Your task to perform on an android device: Open maps Image 0: 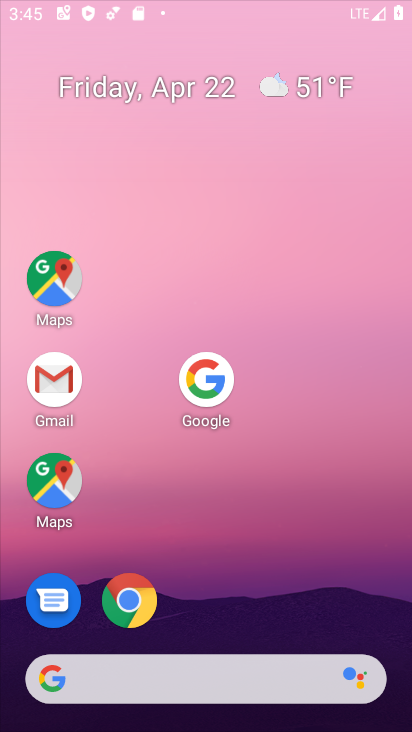
Step 0: drag from (269, 250) to (259, 200)
Your task to perform on an android device: Open maps Image 1: 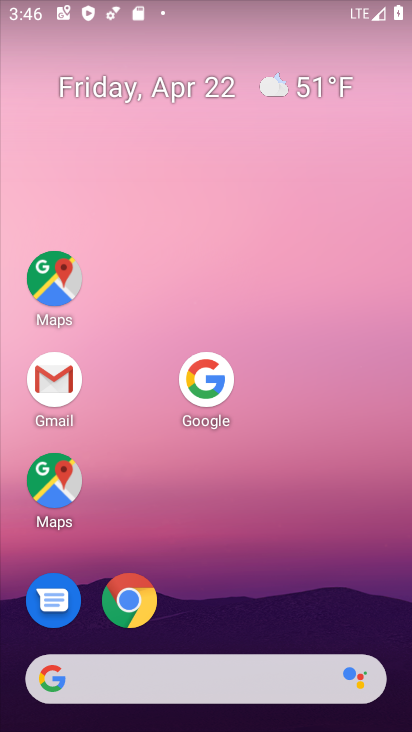
Step 1: drag from (225, 436) to (301, 128)
Your task to perform on an android device: Open maps Image 2: 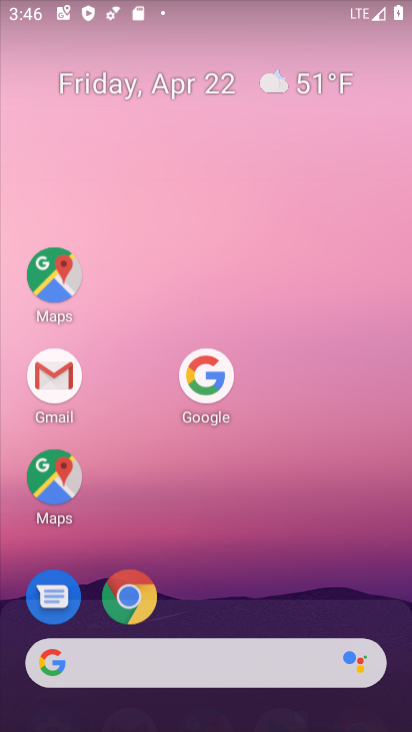
Step 2: drag from (251, 220) to (234, 88)
Your task to perform on an android device: Open maps Image 3: 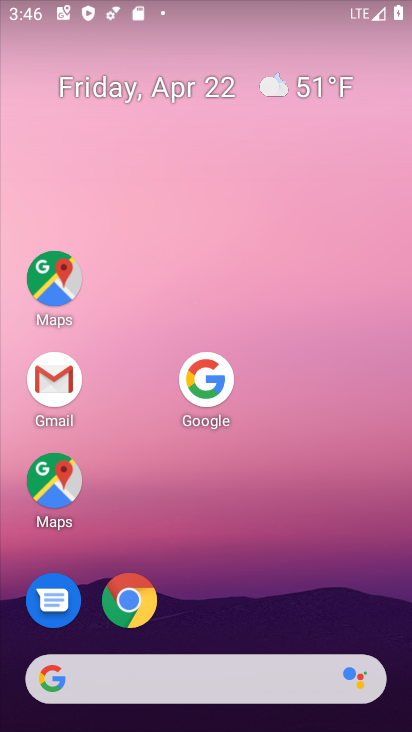
Step 3: drag from (228, 437) to (229, 12)
Your task to perform on an android device: Open maps Image 4: 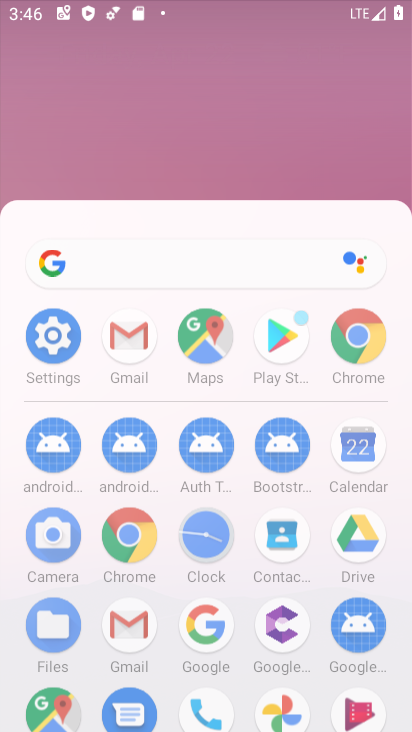
Step 4: drag from (261, 426) to (223, 27)
Your task to perform on an android device: Open maps Image 5: 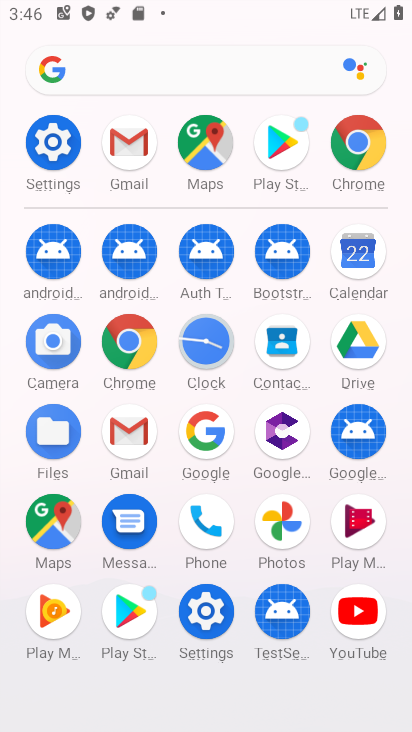
Step 5: drag from (183, 135) to (183, 96)
Your task to perform on an android device: Open maps Image 6: 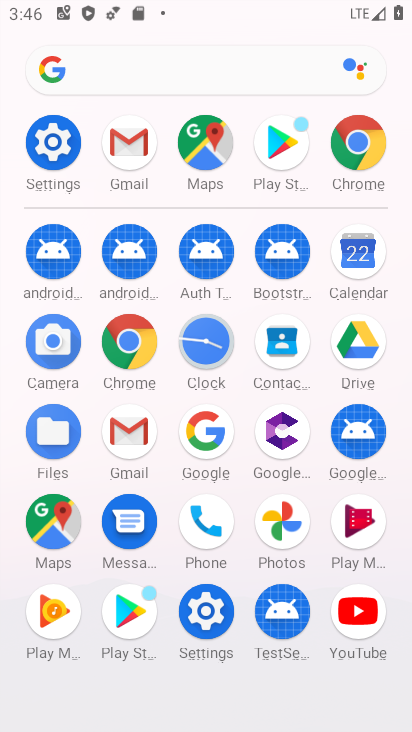
Step 6: click (363, 142)
Your task to perform on an android device: Open maps Image 7: 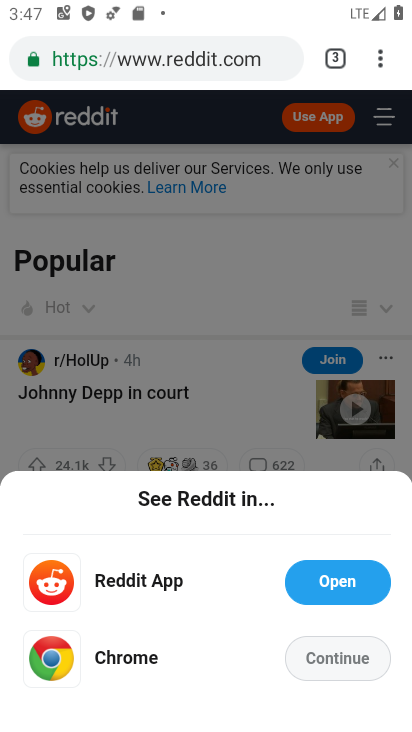
Step 7: press home button
Your task to perform on an android device: Open maps Image 8: 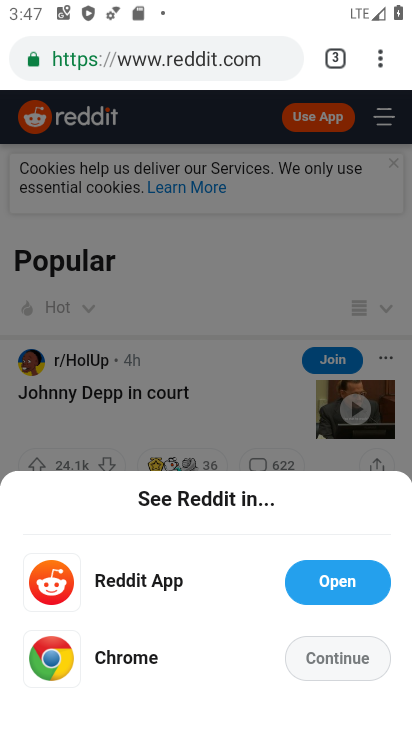
Step 8: press home button
Your task to perform on an android device: Open maps Image 9: 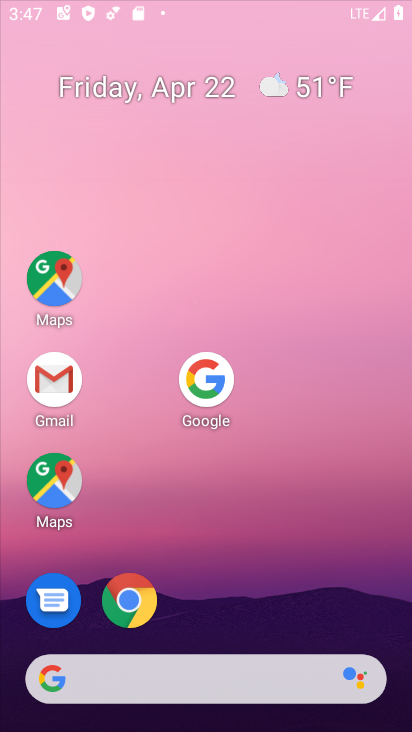
Step 9: press home button
Your task to perform on an android device: Open maps Image 10: 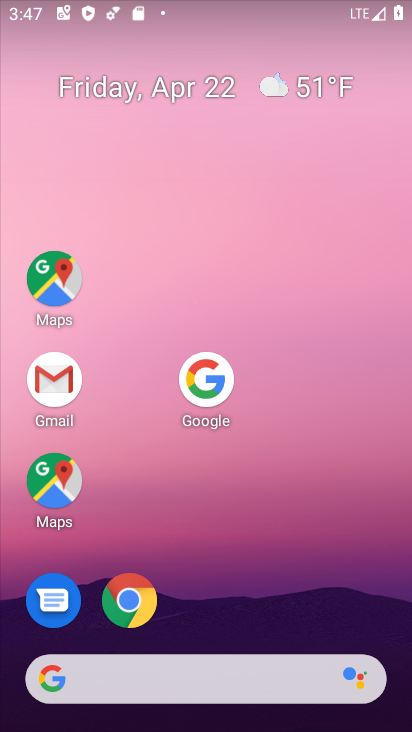
Step 10: press home button
Your task to perform on an android device: Open maps Image 11: 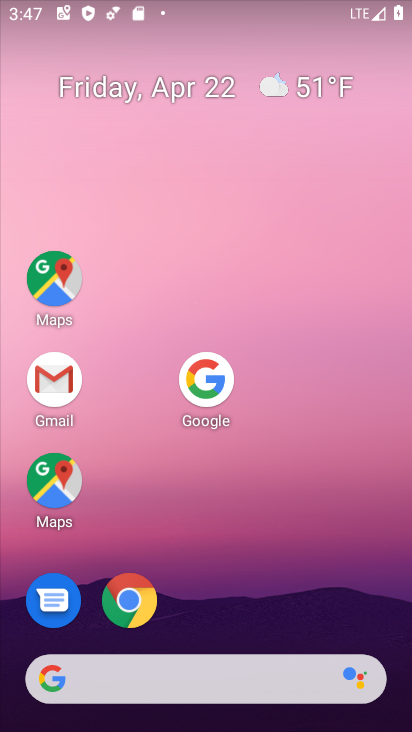
Step 11: press home button
Your task to perform on an android device: Open maps Image 12: 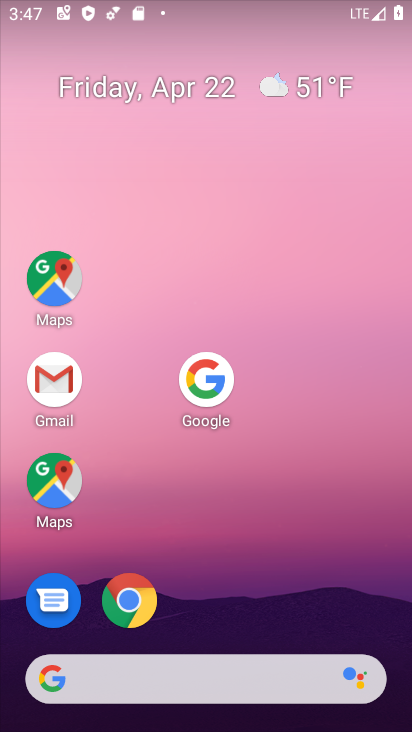
Step 12: drag from (287, 638) to (183, 196)
Your task to perform on an android device: Open maps Image 13: 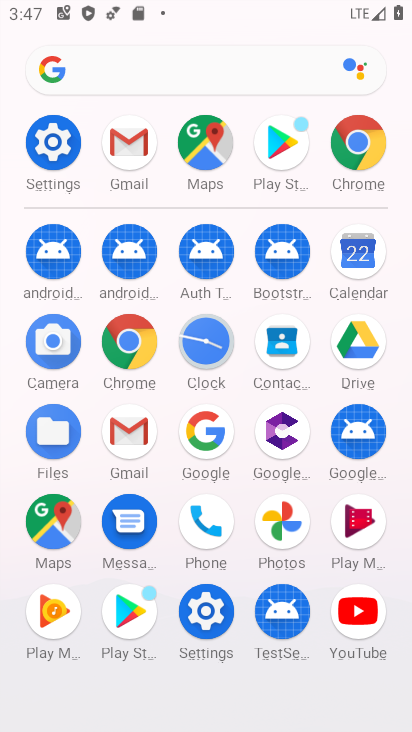
Step 13: click (193, 150)
Your task to perform on an android device: Open maps Image 14: 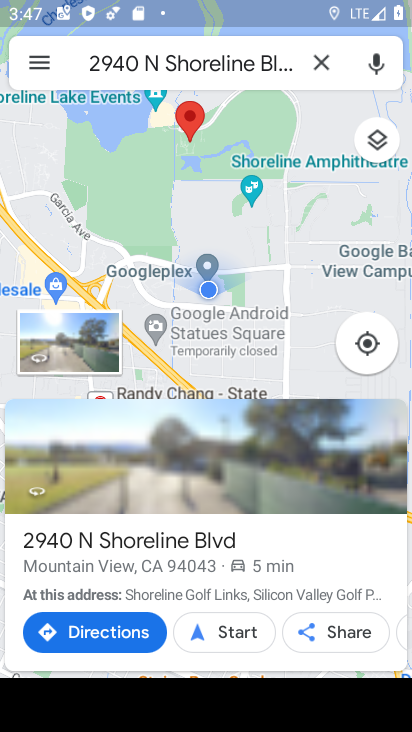
Step 14: click (37, 65)
Your task to perform on an android device: Open maps Image 15: 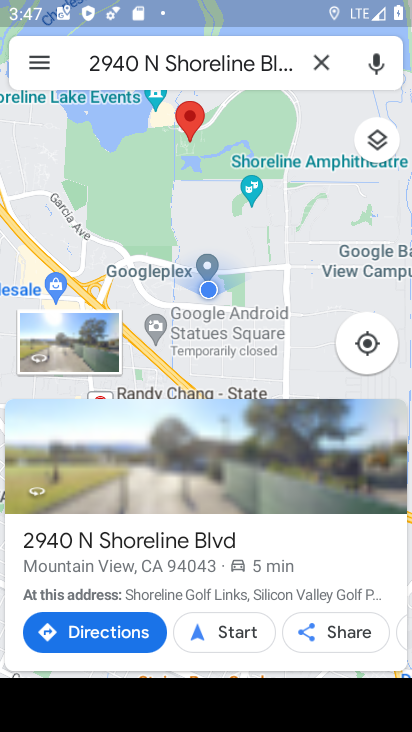
Step 15: click (37, 66)
Your task to perform on an android device: Open maps Image 16: 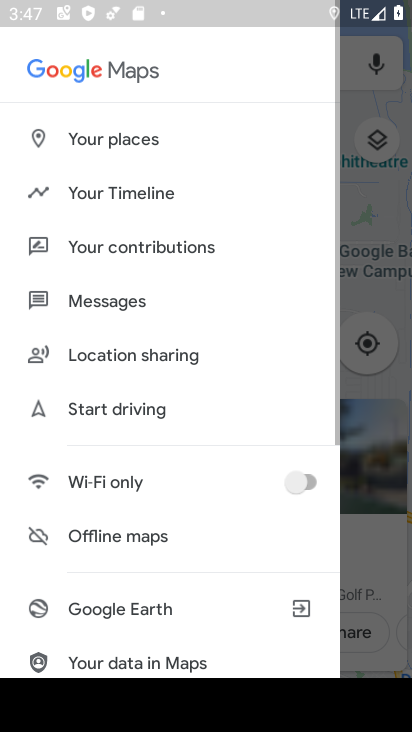
Step 16: click (37, 68)
Your task to perform on an android device: Open maps Image 17: 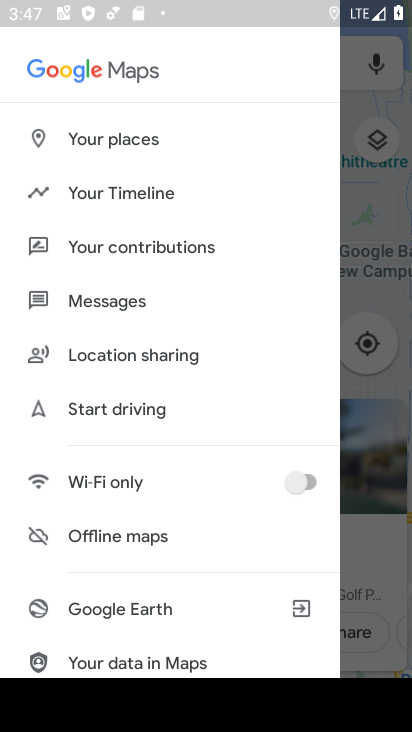
Step 17: click (129, 189)
Your task to perform on an android device: Open maps Image 18: 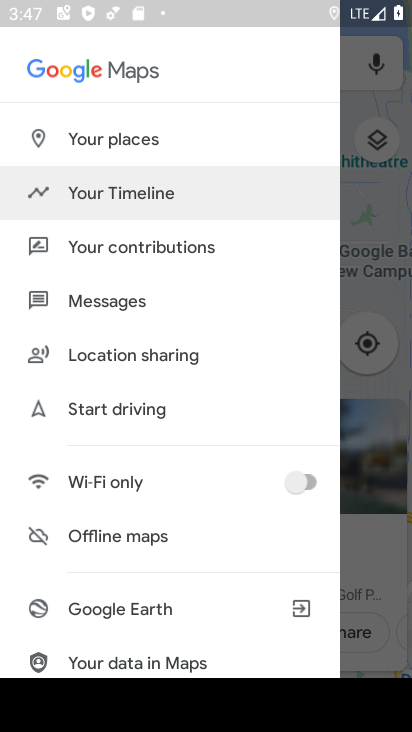
Step 18: click (128, 190)
Your task to perform on an android device: Open maps Image 19: 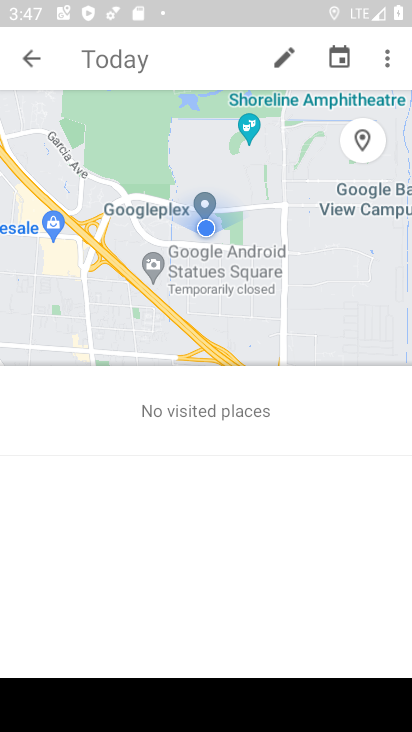
Step 19: click (30, 63)
Your task to perform on an android device: Open maps Image 20: 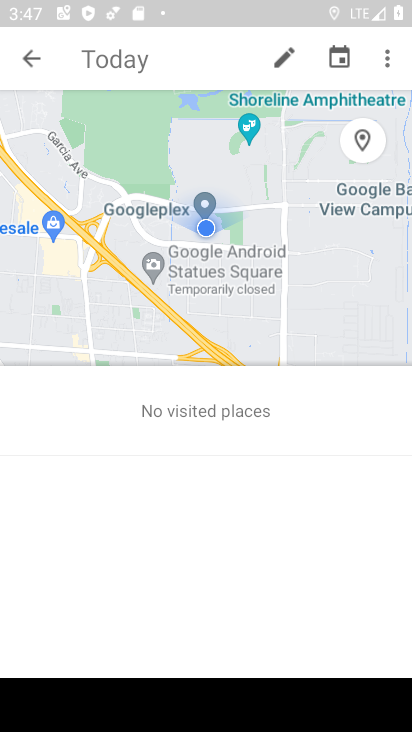
Step 20: click (30, 63)
Your task to perform on an android device: Open maps Image 21: 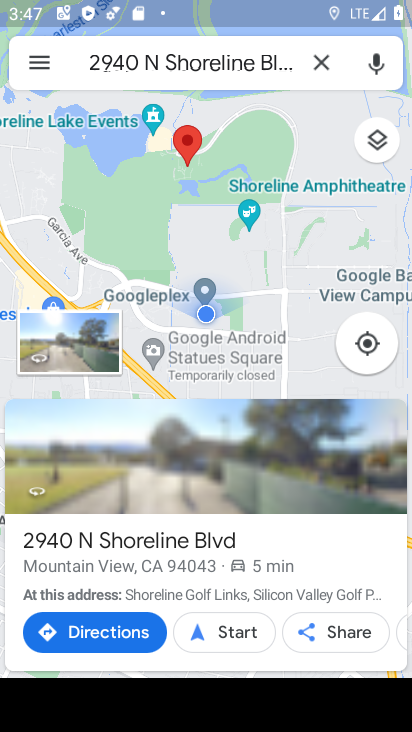
Step 21: click (87, 60)
Your task to perform on an android device: Open maps Image 22: 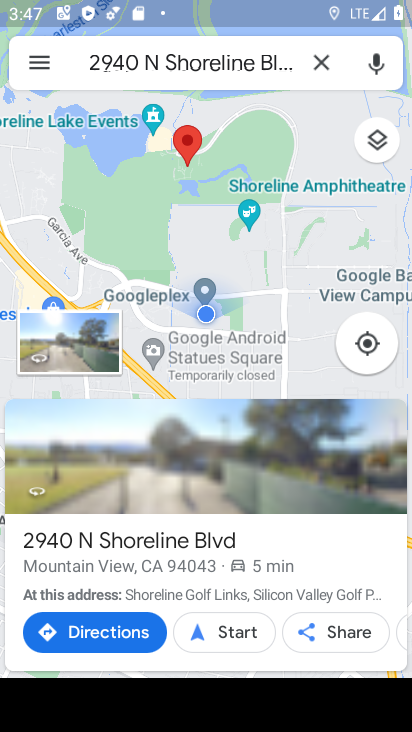
Step 22: click (88, 60)
Your task to perform on an android device: Open maps Image 23: 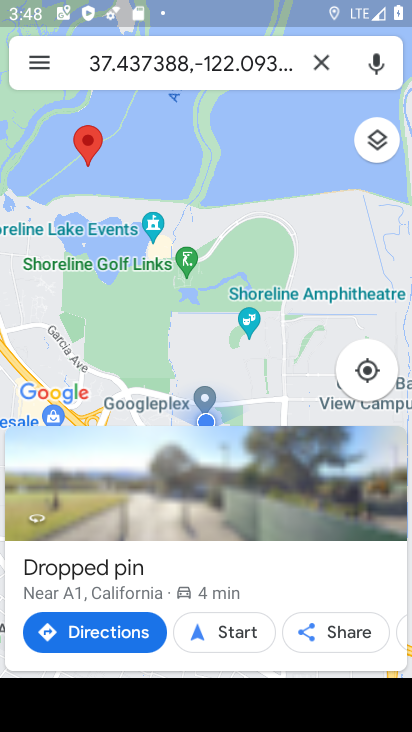
Step 23: click (321, 63)
Your task to perform on an android device: Open maps Image 24: 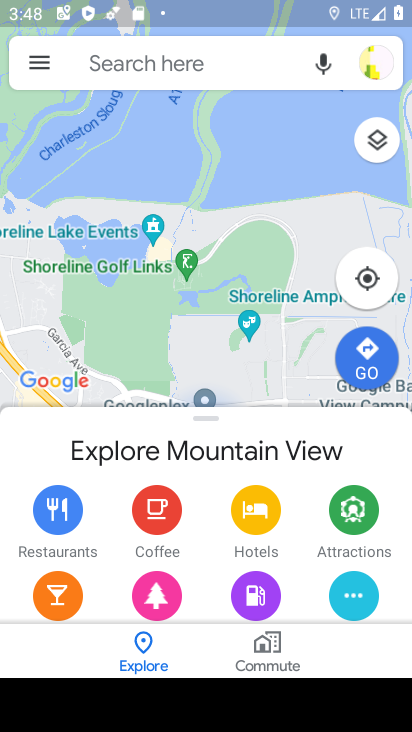
Step 24: click (143, 68)
Your task to perform on an android device: Open maps Image 25: 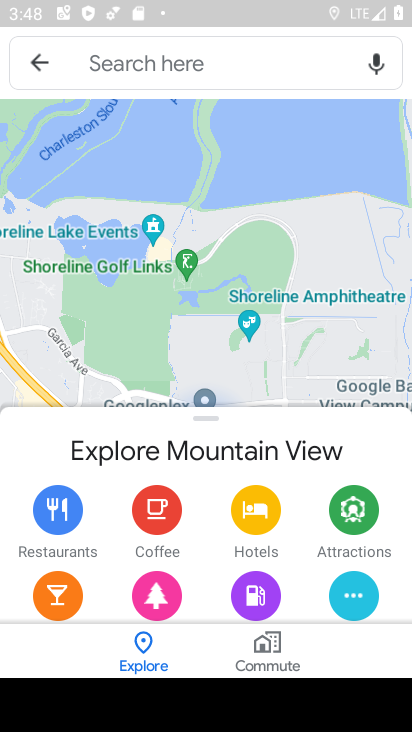
Step 25: click (143, 68)
Your task to perform on an android device: Open maps Image 26: 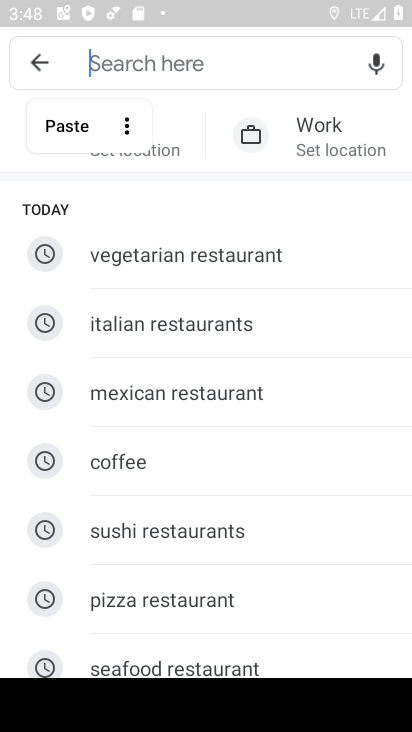
Step 26: click (43, 66)
Your task to perform on an android device: Open maps Image 27: 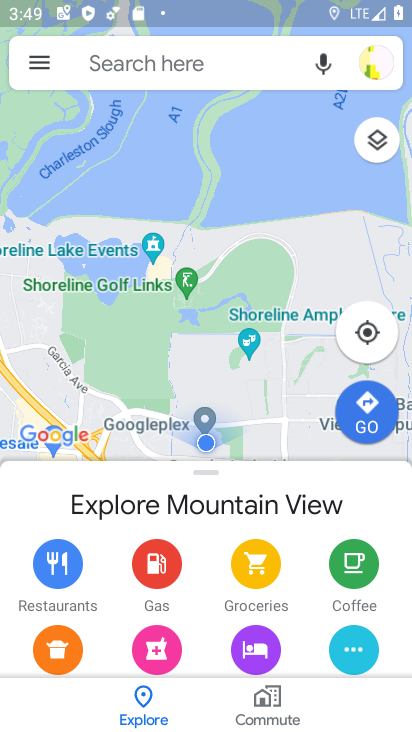
Step 27: click (93, 60)
Your task to perform on an android device: Open maps Image 28: 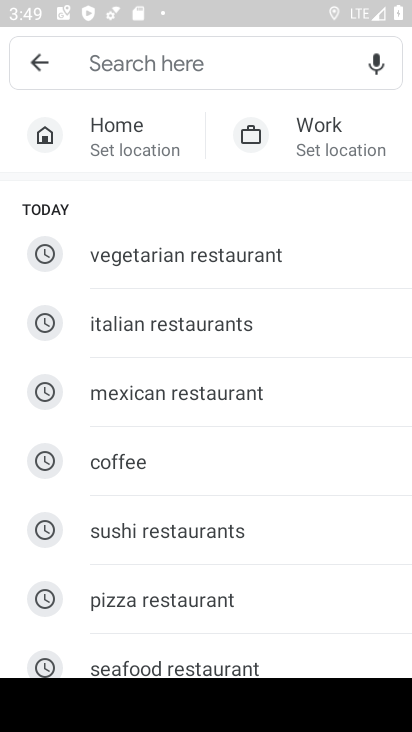
Step 28: click (108, 65)
Your task to perform on an android device: Open maps Image 29: 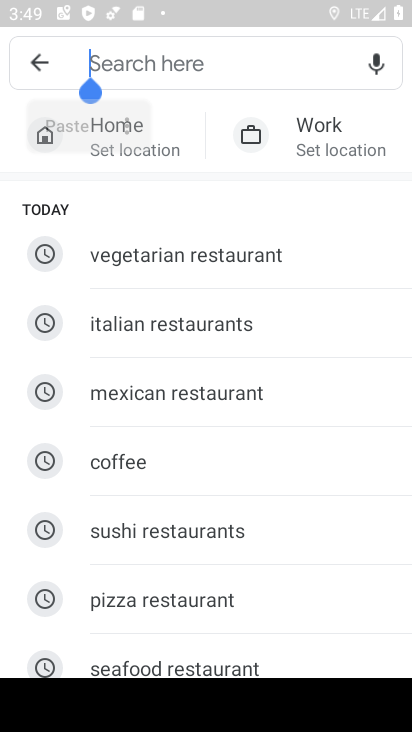
Step 29: click (36, 65)
Your task to perform on an android device: Open maps Image 30: 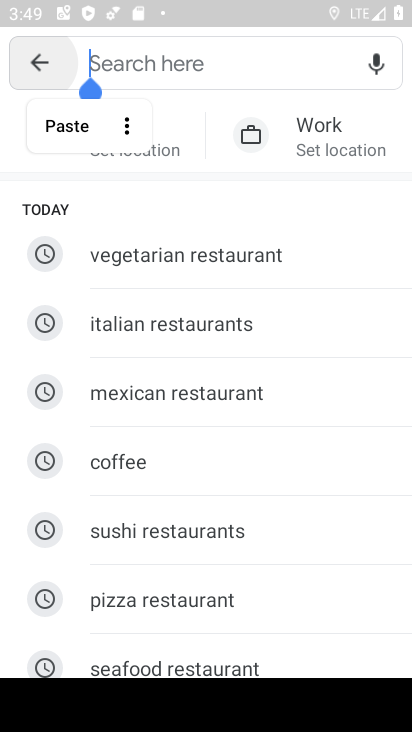
Step 30: click (38, 63)
Your task to perform on an android device: Open maps Image 31: 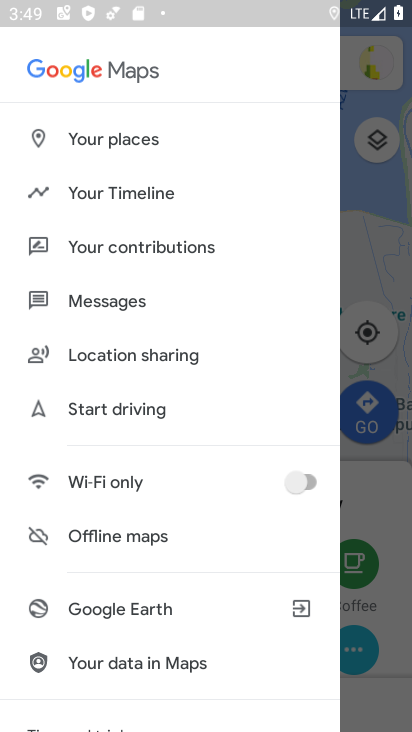
Step 31: click (127, 190)
Your task to perform on an android device: Open maps Image 32: 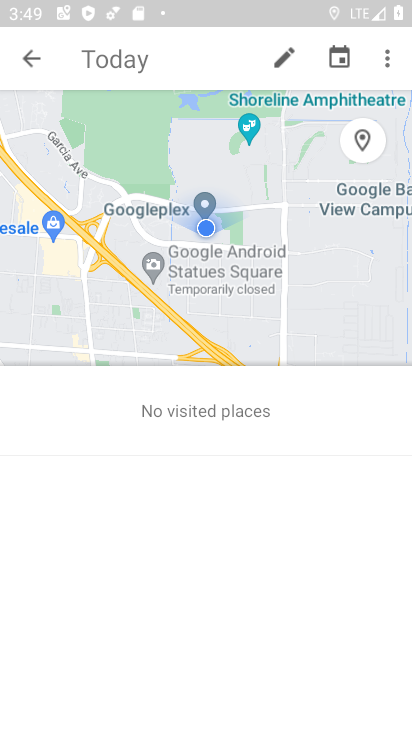
Step 32: click (38, 54)
Your task to perform on an android device: Open maps Image 33: 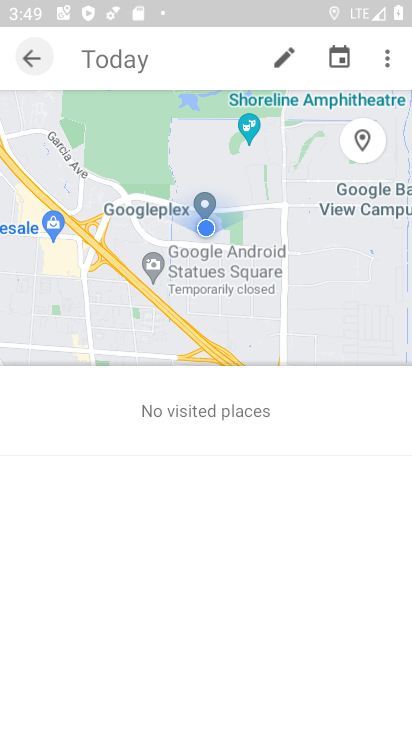
Step 33: click (35, 55)
Your task to perform on an android device: Open maps Image 34: 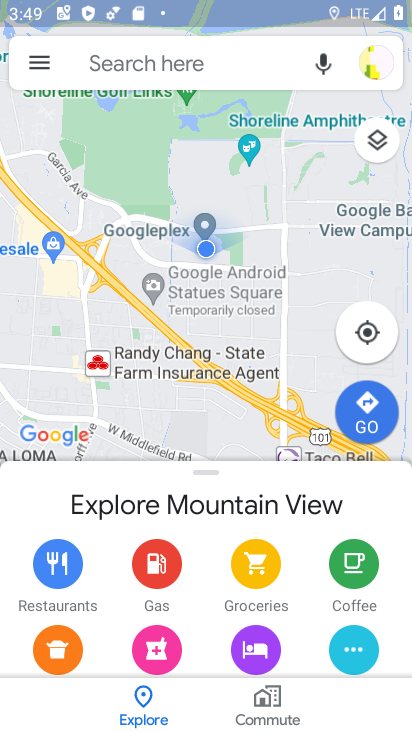
Step 34: click (33, 55)
Your task to perform on an android device: Open maps Image 35: 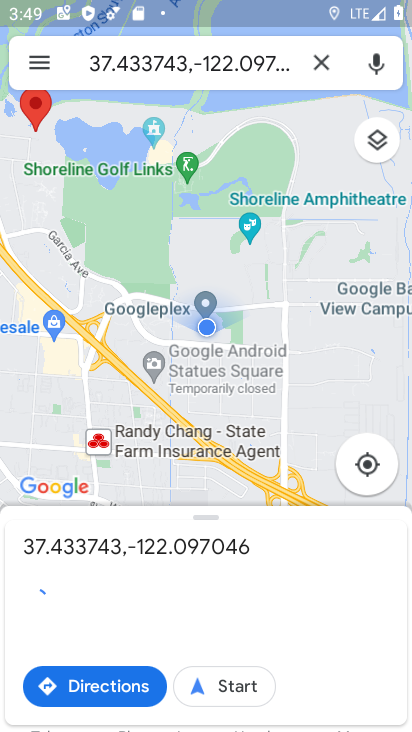
Step 35: click (30, 57)
Your task to perform on an android device: Open maps Image 36: 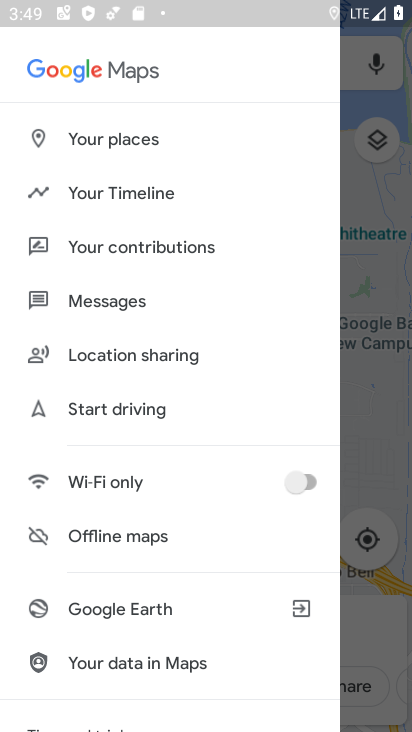
Step 36: click (355, 427)
Your task to perform on an android device: Open maps Image 37: 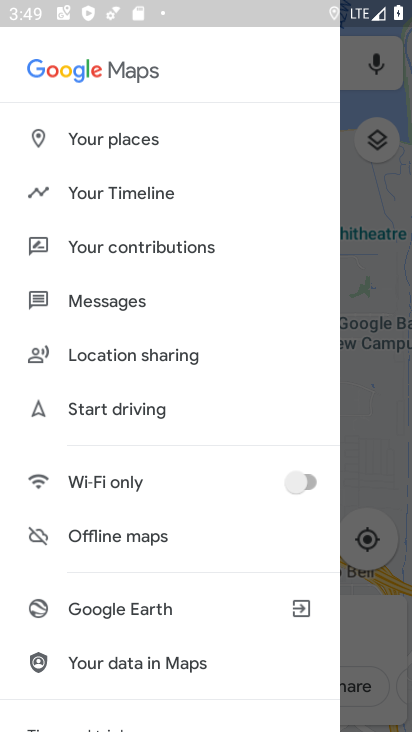
Step 37: drag from (359, 431) to (350, 380)
Your task to perform on an android device: Open maps Image 38: 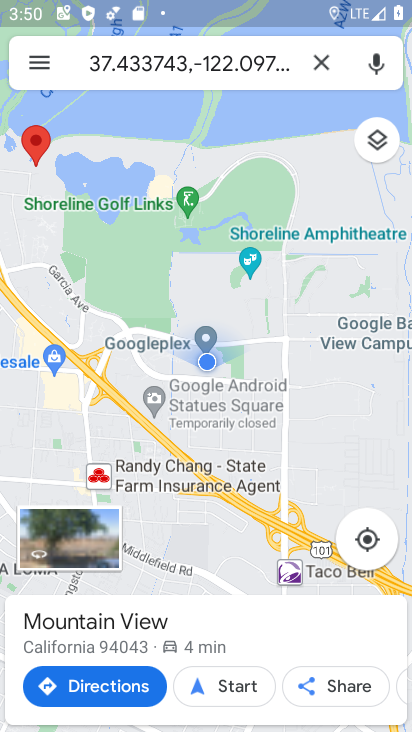
Step 38: click (310, 61)
Your task to perform on an android device: Open maps Image 39: 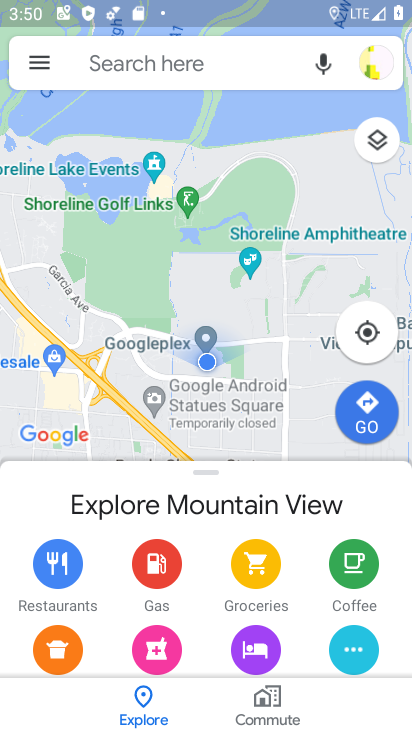
Step 39: click (101, 67)
Your task to perform on an android device: Open maps Image 40: 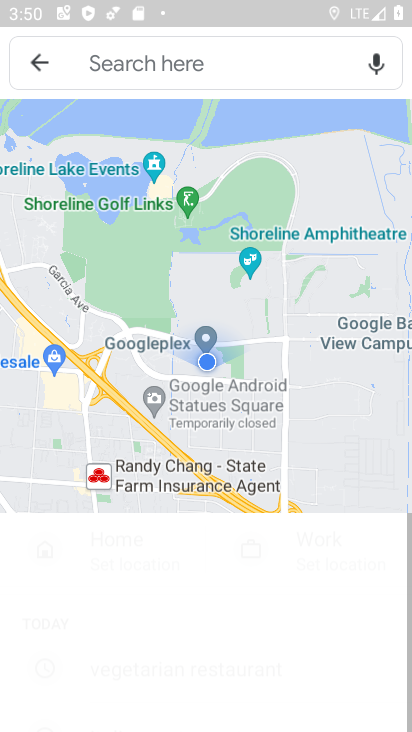
Step 40: click (101, 55)
Your task to perform on an android device: Open maps Image 41: 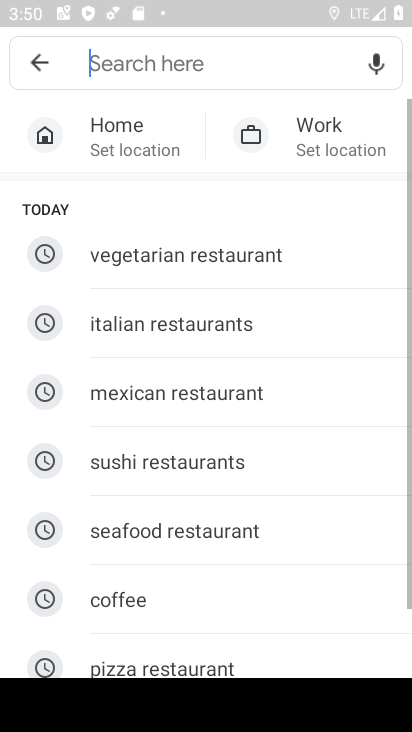
Step 41: click (101, 55)
Your task to perform on an android device: Open maps Image 42: 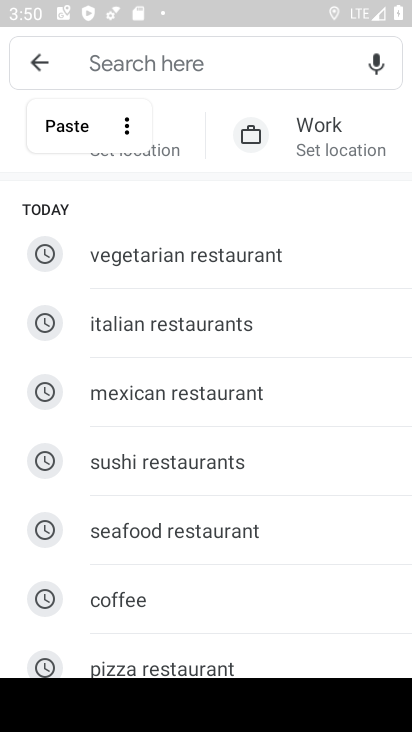
Step 42: task complete